Your task to perform on an android device: change notification settings in the gmail app Image 0: 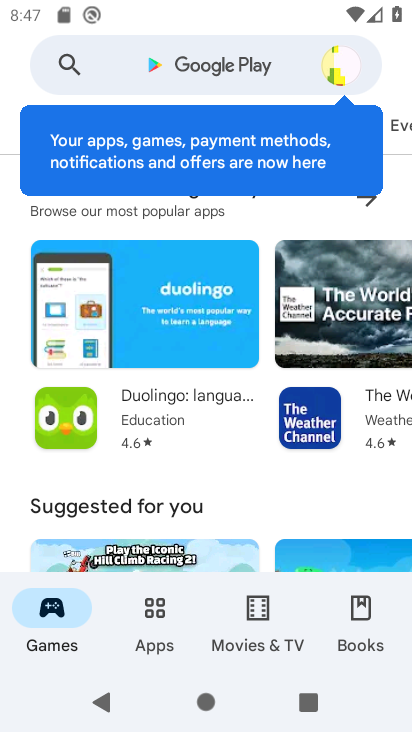
Step 0: press home button
Your task to perform on an android device: change notification settings in the gmail app Image 1: 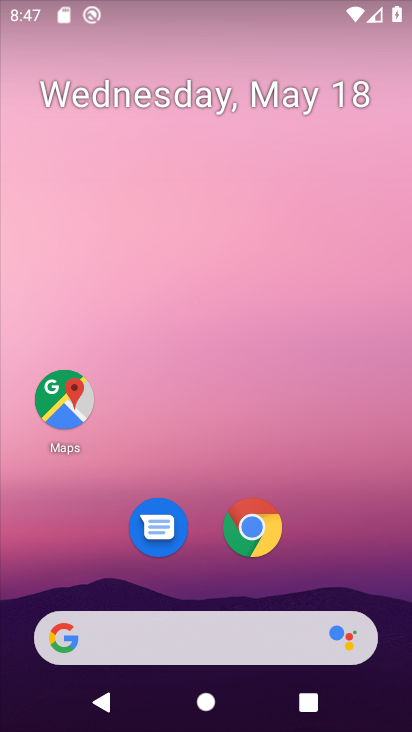
Step 1: drag from (227, 572) to (225, 429)
Your task to perform on an android device: change notification settings in the gmail app Image 2: 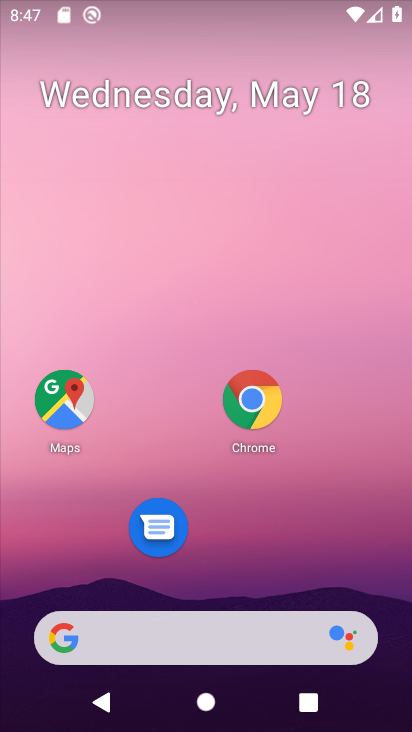
Step 2: drag from (257, 542) to (238, 15)
Your task to perform on an android device: change notification settings in the gmail app Image 3: 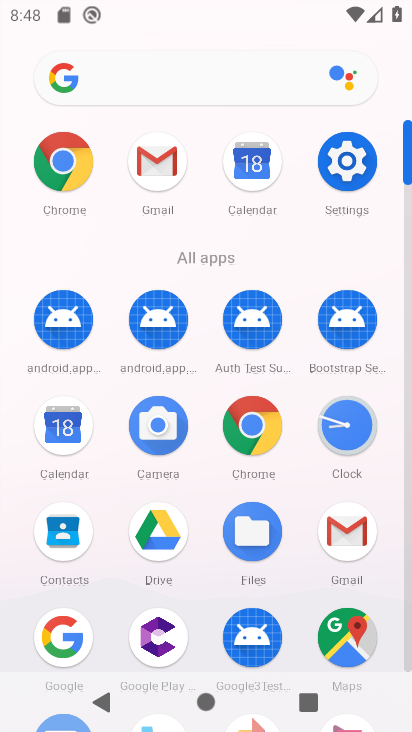
Step 3: click (155, 168)
Your task to perform on an android device: change notification settings in the gmail app Image 4: 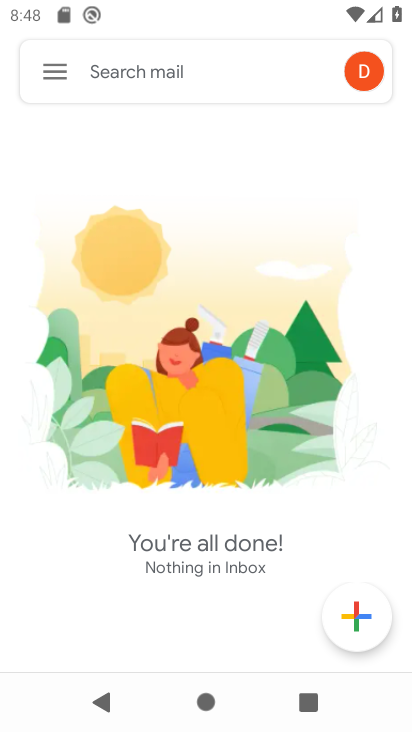
Step 4: click (57, 70)
Your task to perform on an android device: change notification settings in the gmail app Image 5: 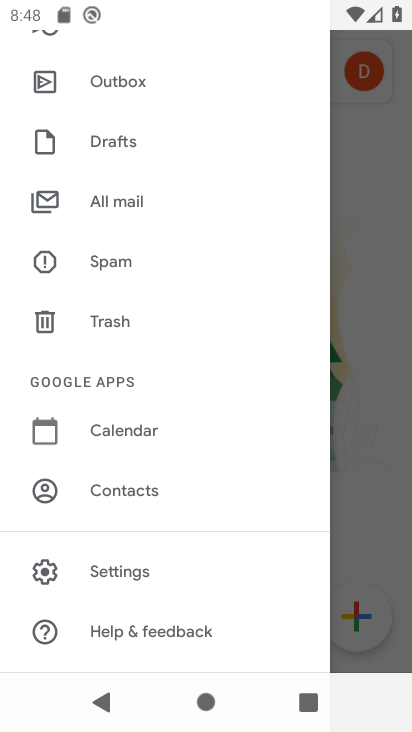
Step 5: click (128, 579)
Your task to perform on an android device: change notification settings in the gmail app Image 6: 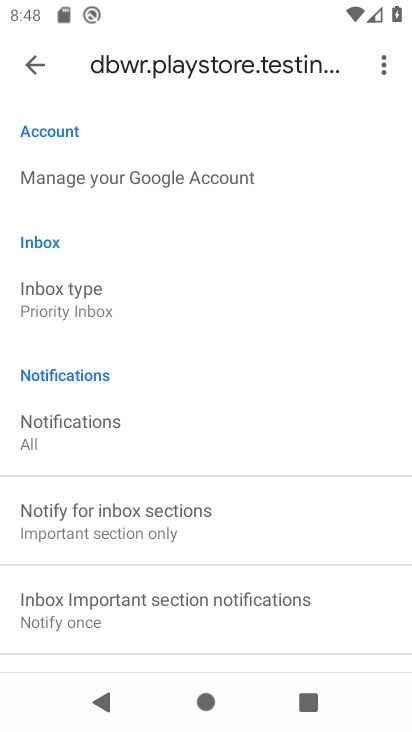
Step 6: click (77, 446)
Your task to perform on an android device: change notification settings in the gmail app Image 7: 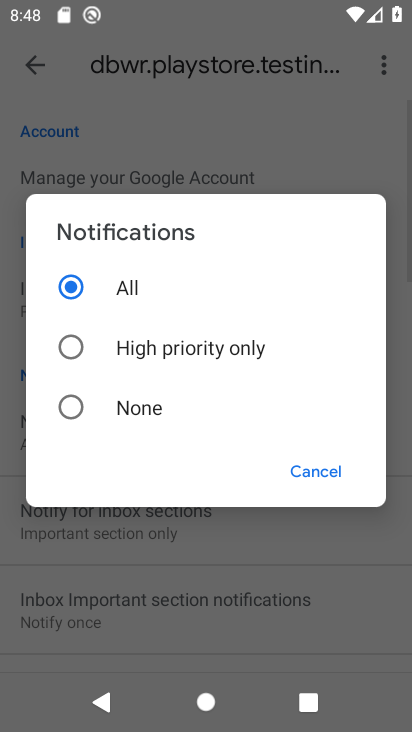
Step 7: click (77, 414)
Your task to perform on an android device: change notification settings in the gmail app Image 8: 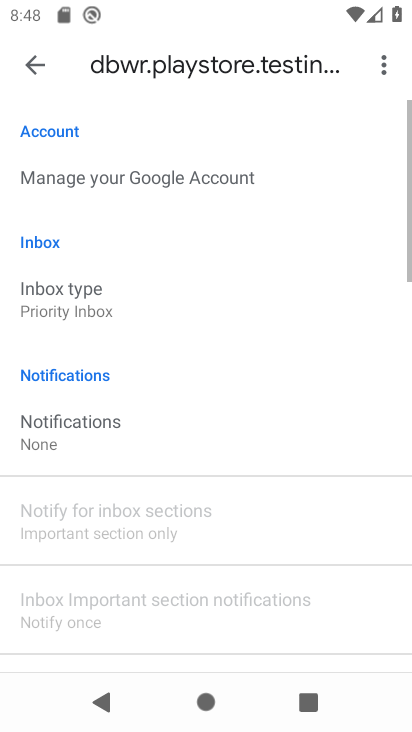
Step 8: task complete